Your task to perform on an android device: change the clock style Image 0: 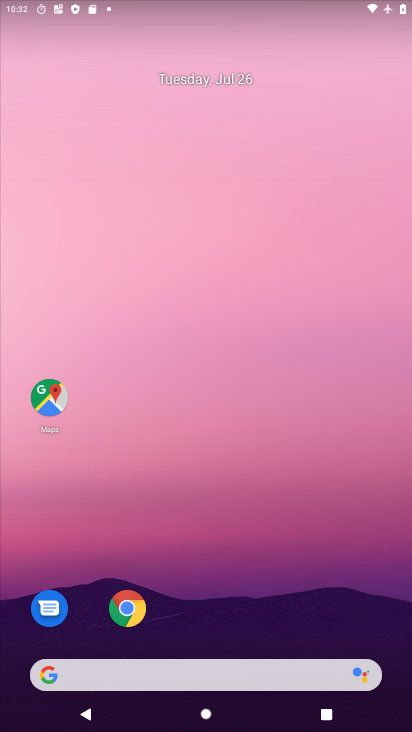
Step 0: drag from (202, 616) to (219, 130)
Your task to perform on an android device: change the clock style Image 1: 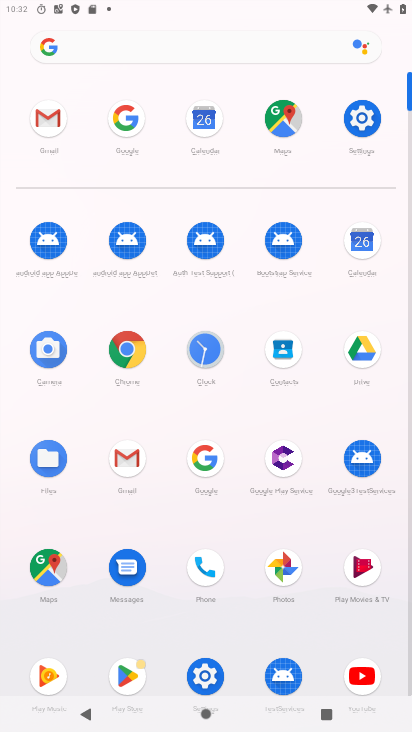
Step 1: click (219, 354)
Your task to perform on an android device: change the clock style Image 2: 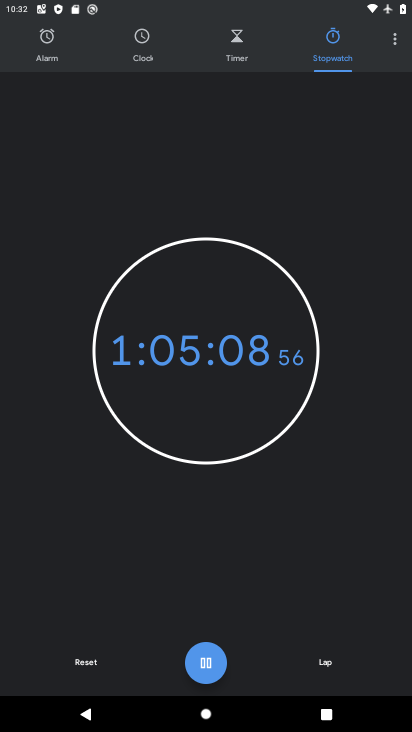
Step 2: click (384, 40)
Your task to perform on an android device: change the clock style Image 3: 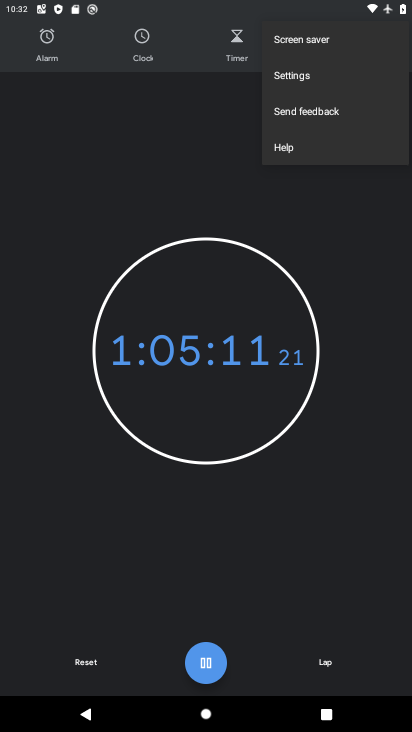
Step 3: click (337, 81)
Your task to perform on an android device: change the clock style Image 4: 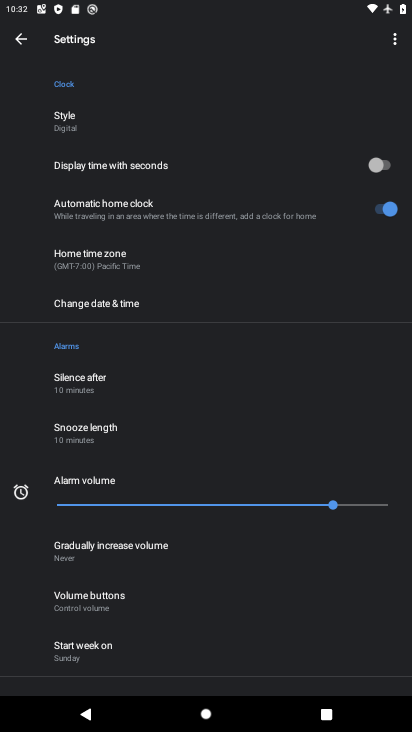
Step 4: click (69, 131)
Your task to perform on an android device: change the clock style Image 5: 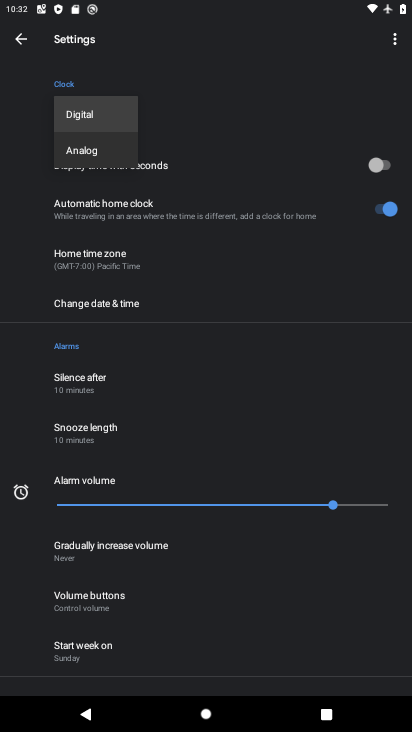
Step 5: click (88, 150)
Your task to perform on an android device: change the clock style Image 6: 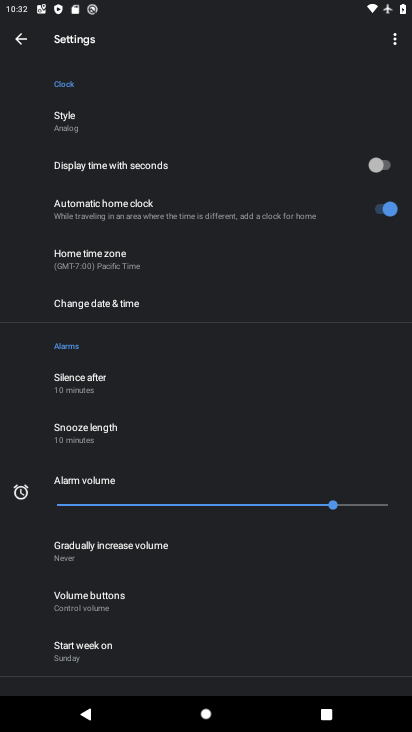
Step 6: task complete